Your task to perform on an android device: Turn on the flashlight Image 0: 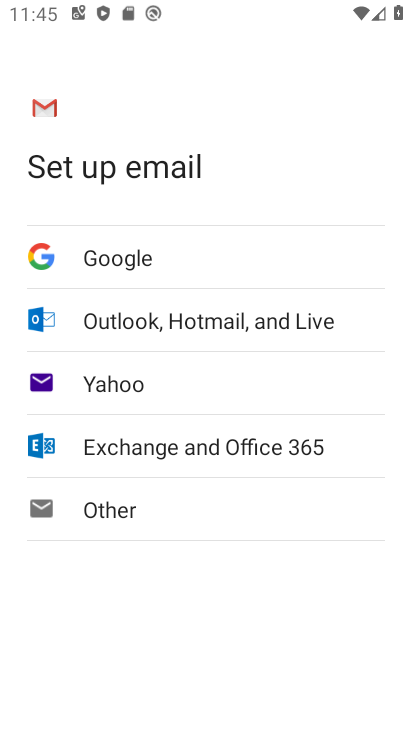
Step 0: press home button
Your task to perform on an android device: Turn on the flashlight Image 1: 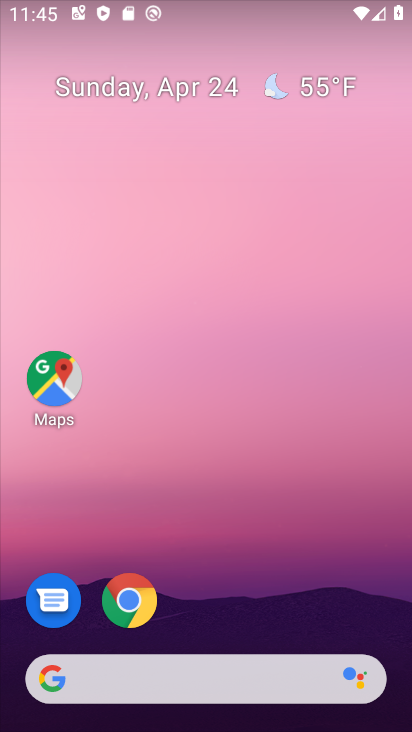
Step 1: drag from (180, 37) to (146, 710)
Your task to perform on an android device: Turn on the flashlight Image 2: 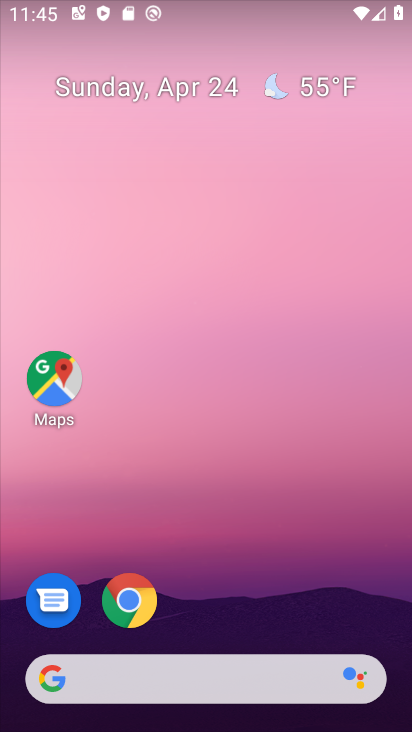
Step 2: drag from (220, 15) to (254, 558)
Your task to perform on an android device: Turn on the flashlight Image 3: 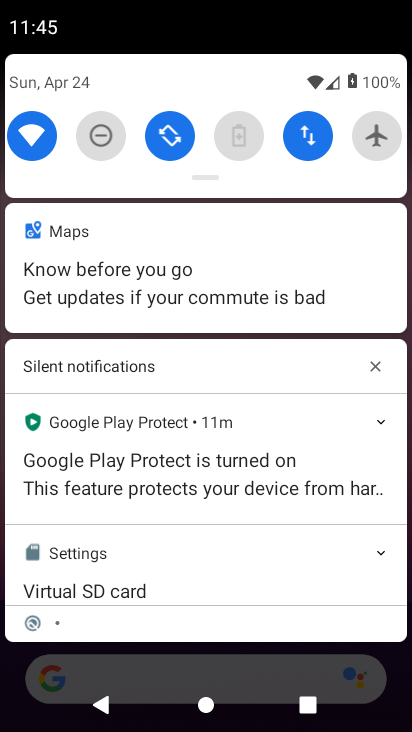
Step 3: drag from (178, 63) to (212, 580)
Your task to perform on an android device: Turn on the flashlight Image 4: 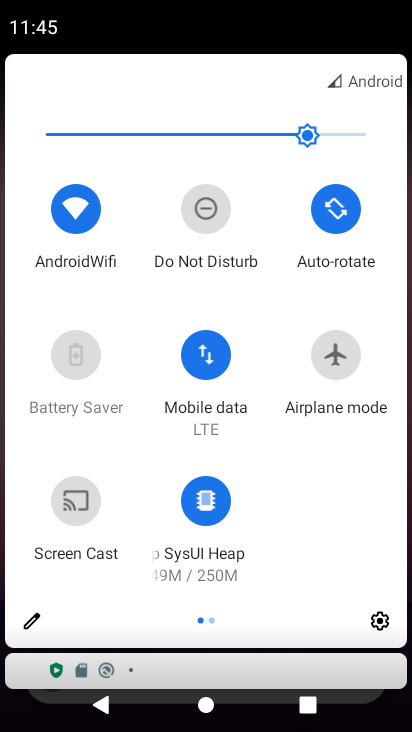
Step 4: click (379, 630)
Your task to perform on an android device: Turn on the flashlight Image 5: 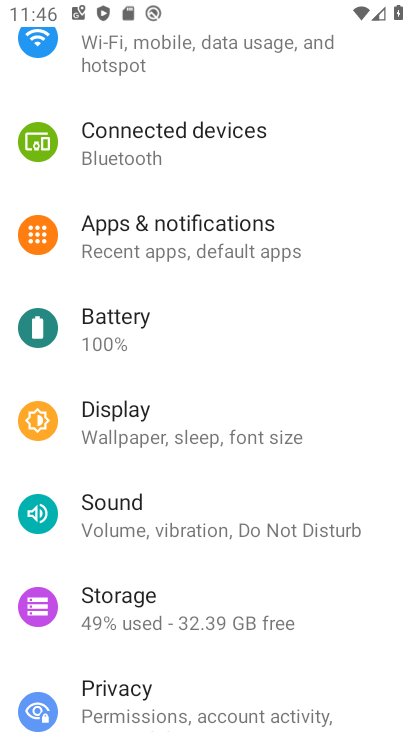
Step 5: task complete